Your task to perform on an android device: Search for Italian restaurants on Maps Image 0: 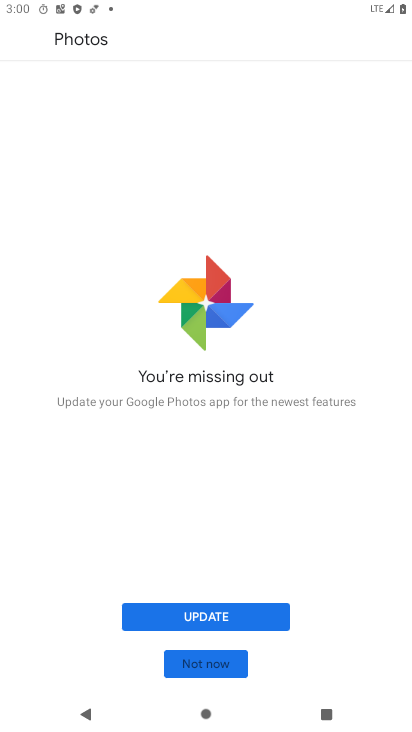
Step 0: press home button
Your task to perform on an android device: Search for Italian restaurants on Maps Image 1: 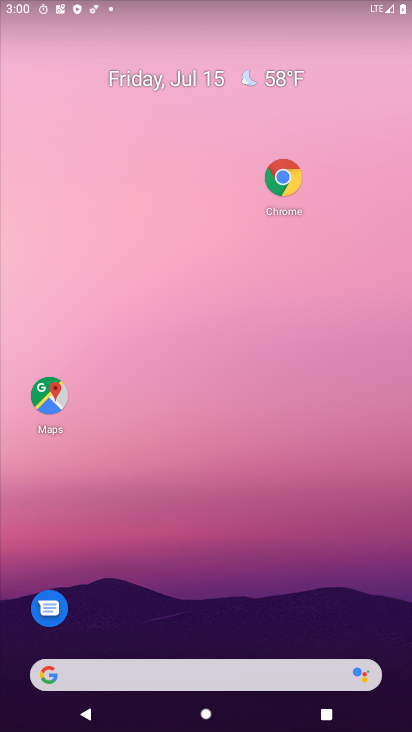
Step 1: click (56, 398)
Your task to perform on an android device: Search for Italian restaurants on Maps Image 2: 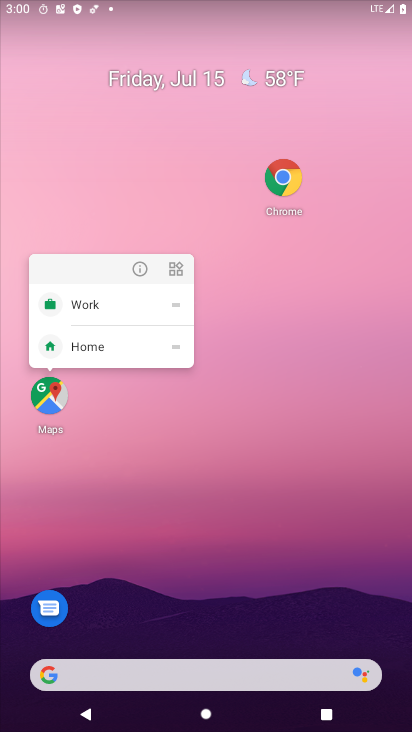
Step 2: click (46, 389)
Your task to perform on an android device: Search for Italian restaurants on Maps Image 3: 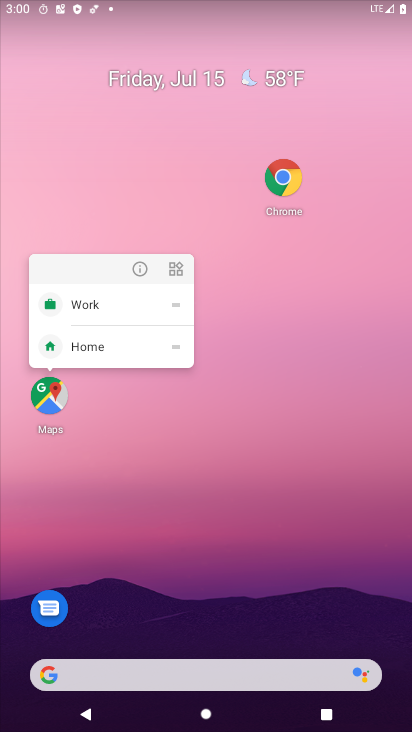
Step 3: click (46, 389)
Your task to perform on an android device: Search for Italian restaurants on Maps Image 4: 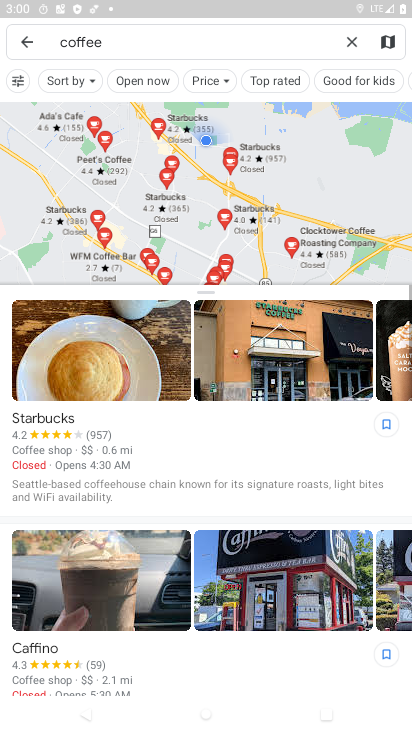
Step 4: click (234, 45)
Your task to perform on an android device: Search for Italian restaurants on Maps Image 5: 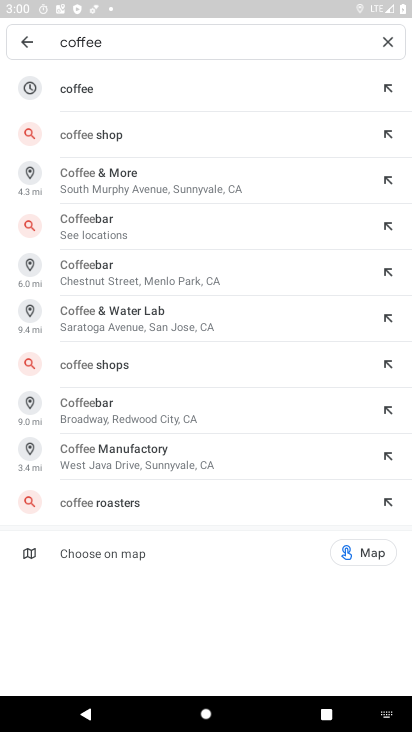
Step 5: click (381, 46)
Your task to perform on an android device: Search for Italian restaurants on Maps Image 6: 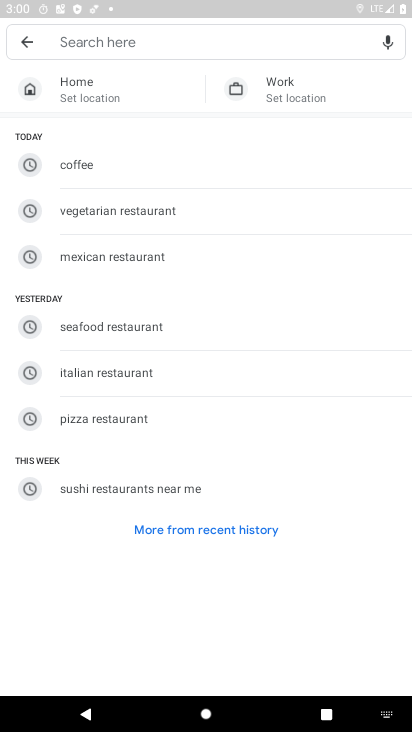
Step 6: type "Italian restaurants"
Your task to perform on an android device: Search for Italian restaurants on Maps Image 7: 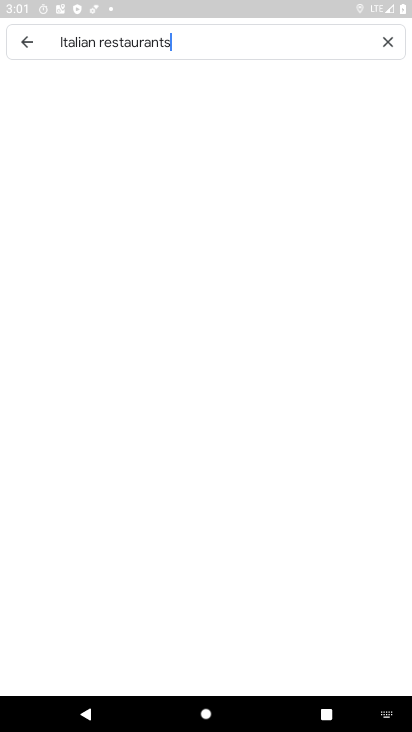
Step 7: type ""
Your task to perform on an android device: Search for Italian restaurants on Maps Image 8: 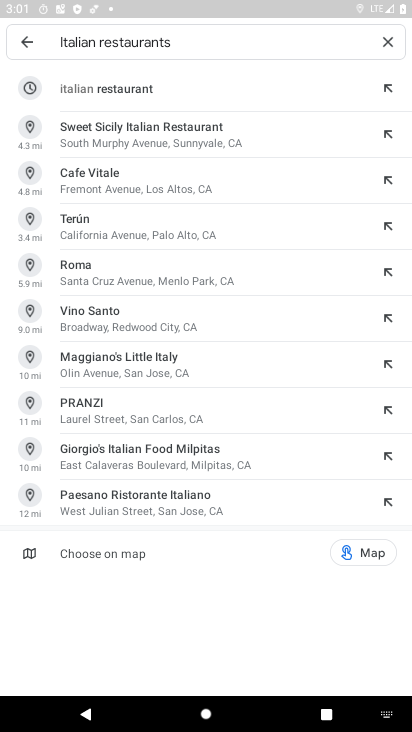
Step 8: click (78, 91)
Your task to perform on an android device: Search for Italian restaurants on Maps Image 9: 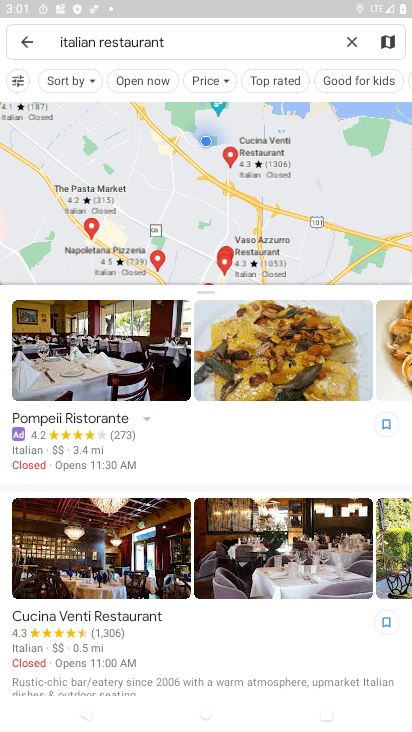
Step 9: task complete